Your task to perform on an android device: turn pop-ups on in chrome Image 0: 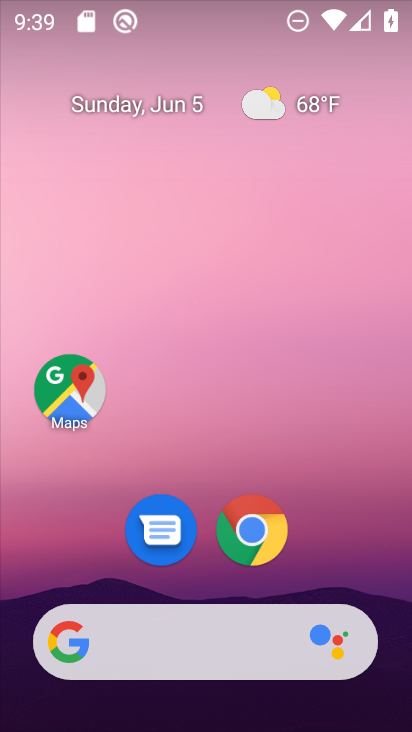
Step 0: click (253, 526)
Your task to perform on an android device: turn pop-ups on in chrome Image 1: 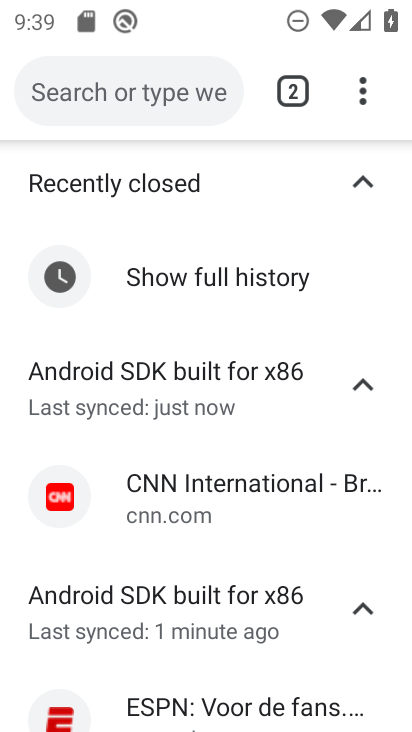
Step 1: click (360, 104)
Your task to perform on an android device: turn pop-ups on in chrome Image 2: 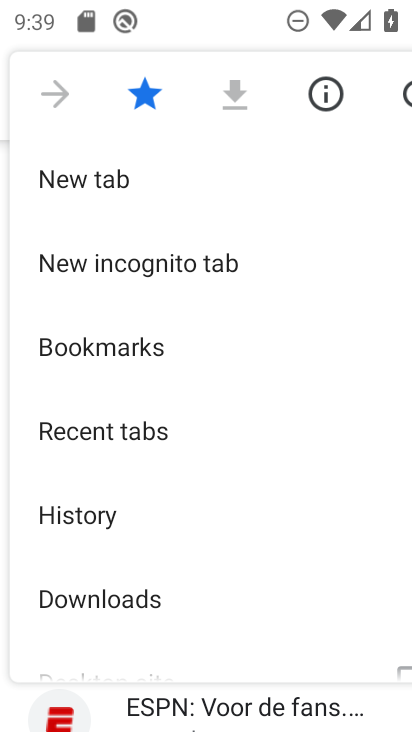
Step 2: drag from (198, 589) to (258, 182)
Your task to perform on an android device: turn pop-ups on in chrome Image 3: 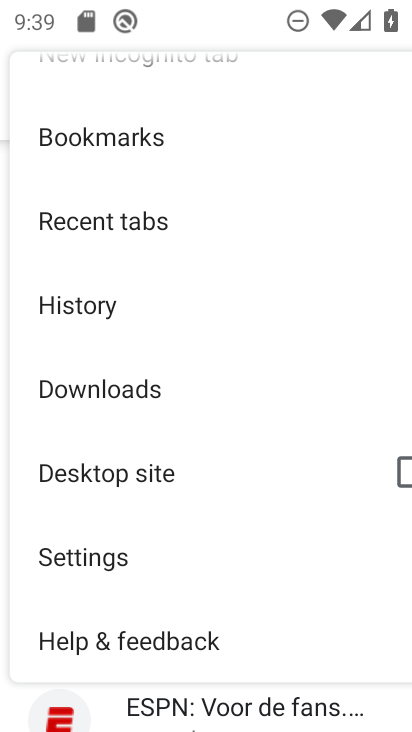
Step 3: click (110, 559)
Your task to perform on an android device: turn pop-ups on in chrome Image 4: 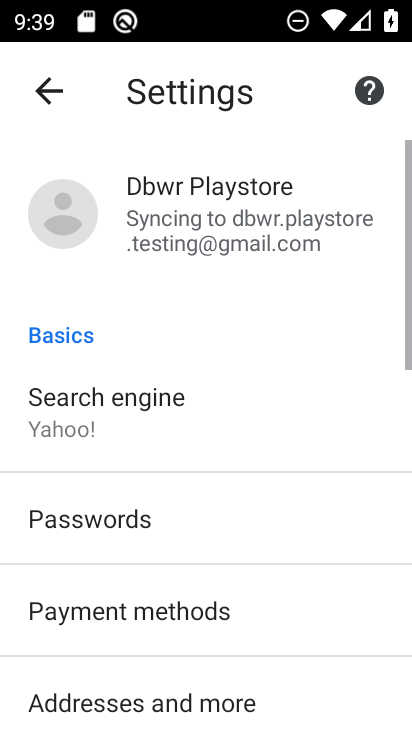
Step 4: drag from (292, 704) to (264, 213)
Your task to perform on an android device: turn pop-ups on in chrome Image 5: 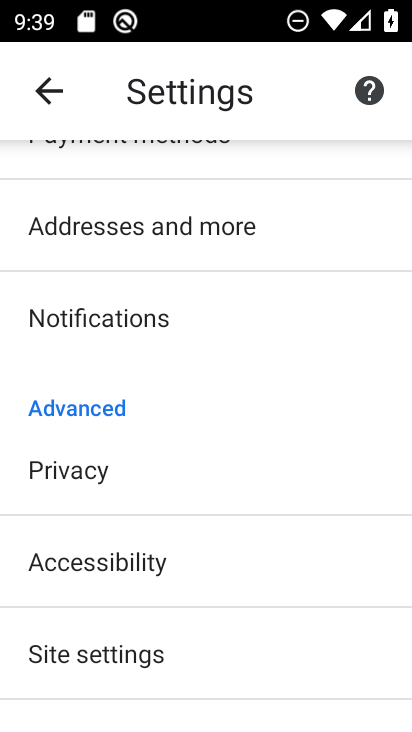
Step 5: drag from (199, 644) to (224, 269)
Your task to perform on an android device: turn pop-ups on in chrome Image 6: 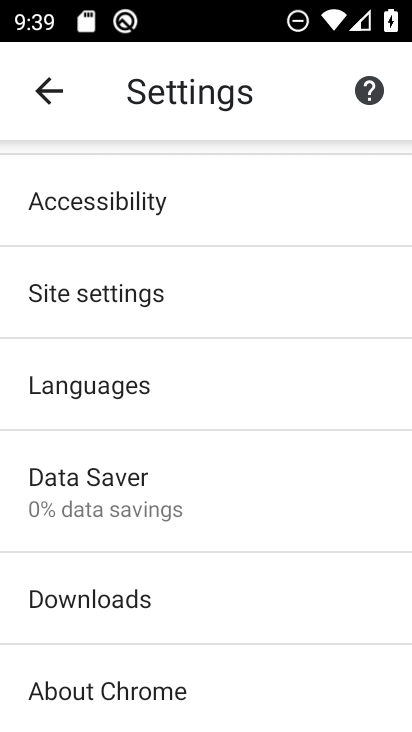
Step 6: click (73, 289)
Your task to perform on an android device: turn pop-ups on in chrome Image 7: 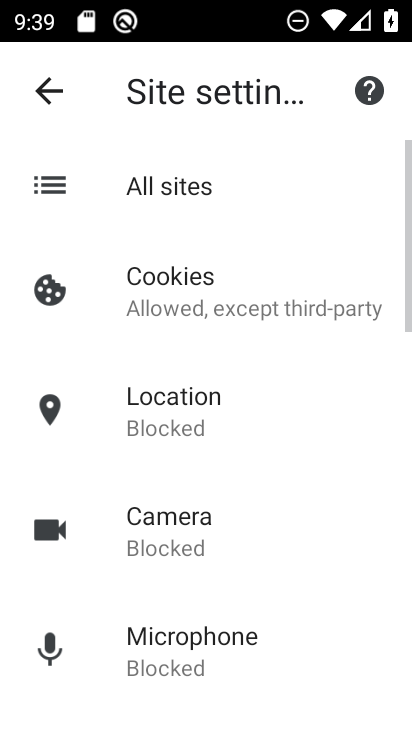
Step 7: drag from (315, 692) to (303, 198)
Your task to perform on an android device: turn pop-ups on in chrome Image 8: 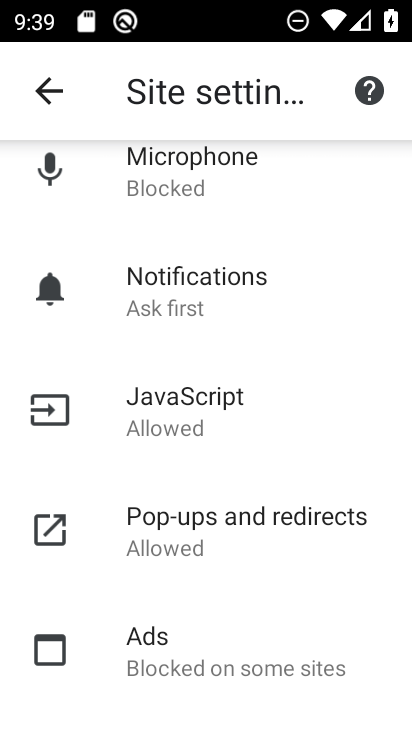
Step 8: click (178, 527)
Your task to perform on an android device: turn pop-ups on in chrome Image 9: 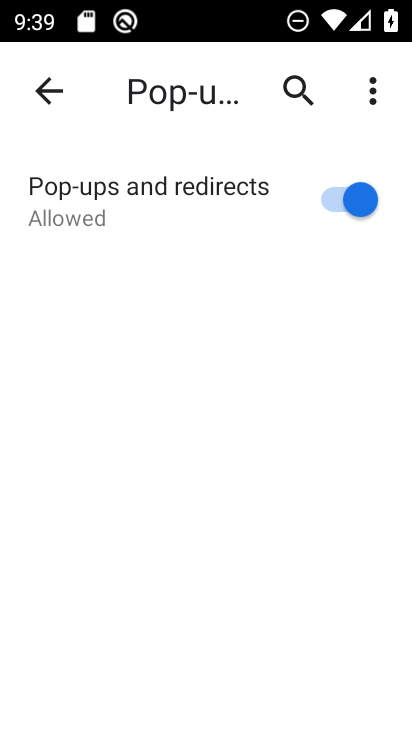
Step 9: task complete